Your task to perform on an android device: Open network settings Image 0: 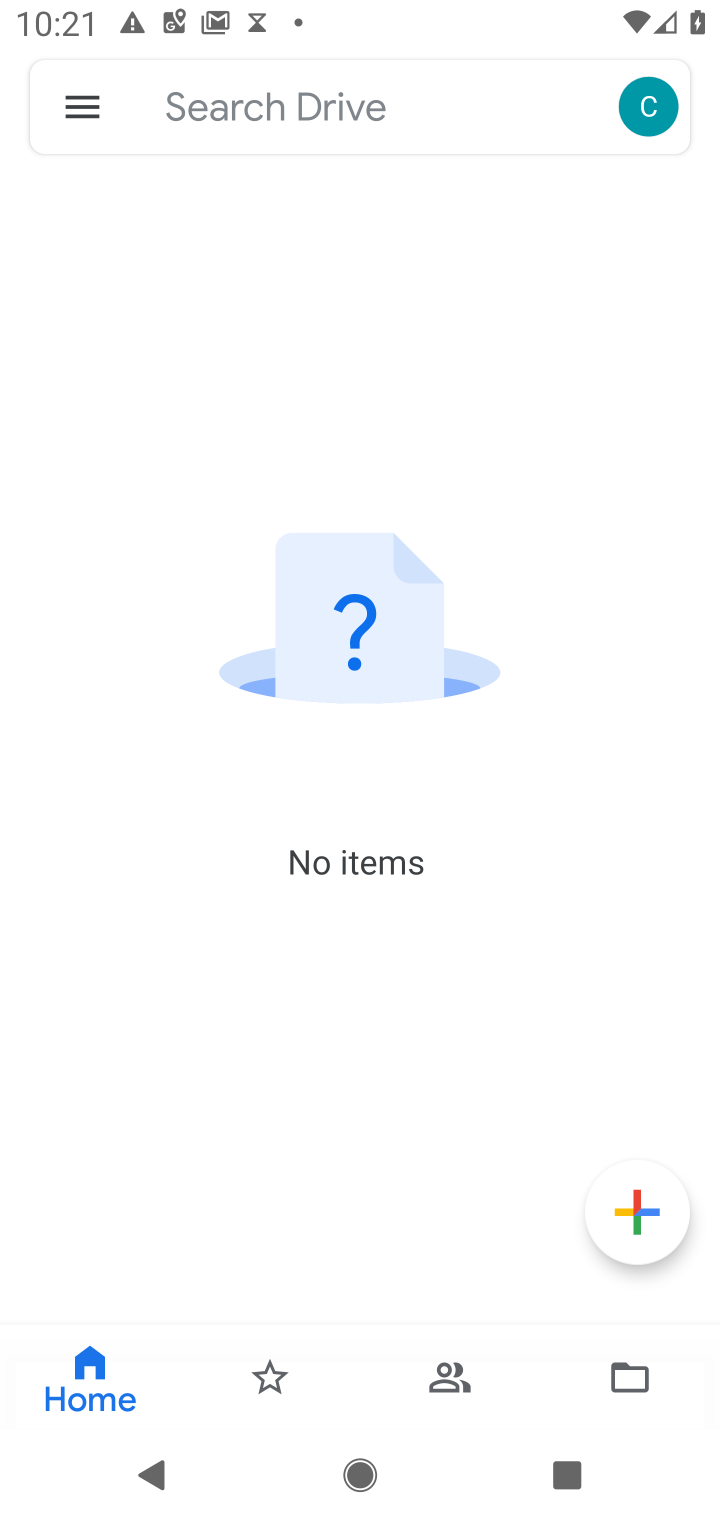
Step 0: press home button
Your task to perform on an android device: Open network settings Image 1: 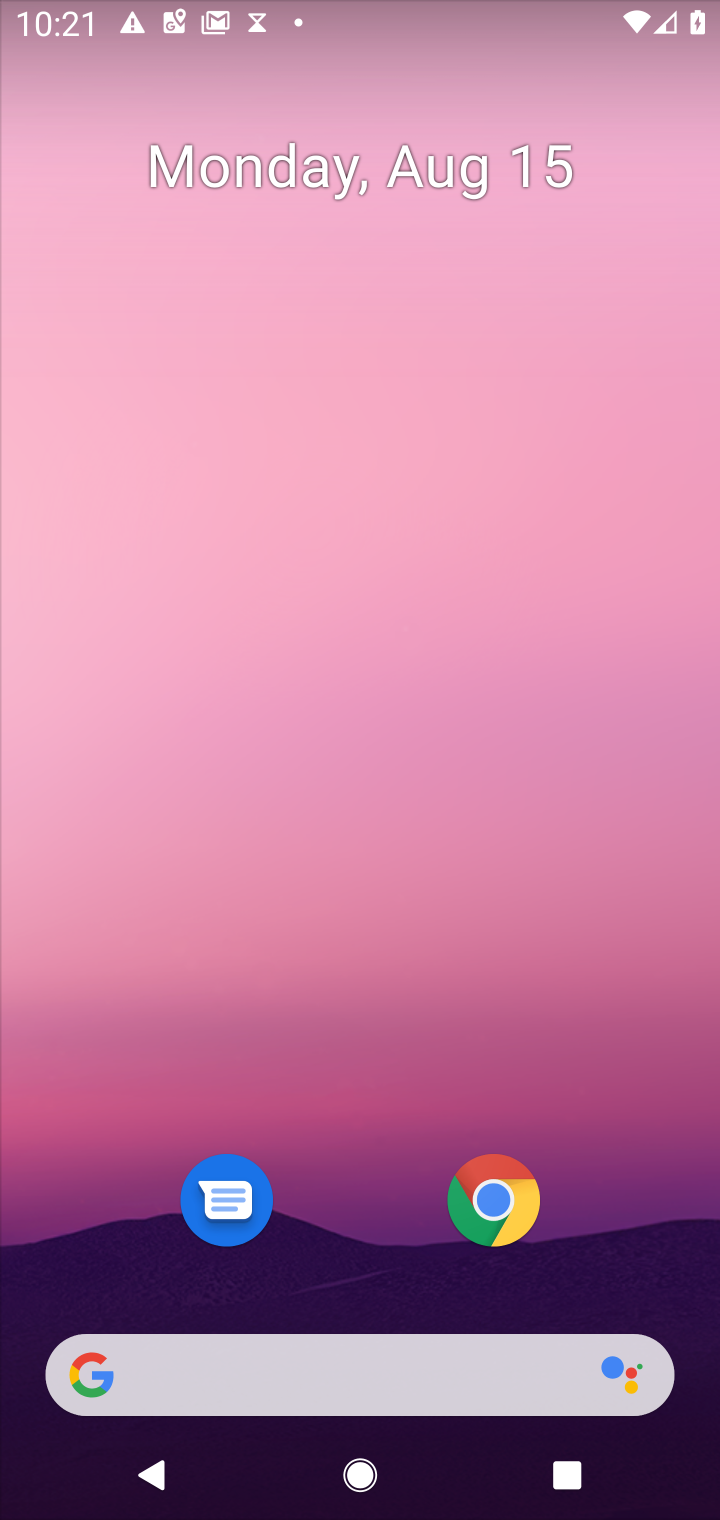
Step 1: drag from (358, 1274) to (330, 438)
Your task to perform on an android device: Open network settings Image 2: 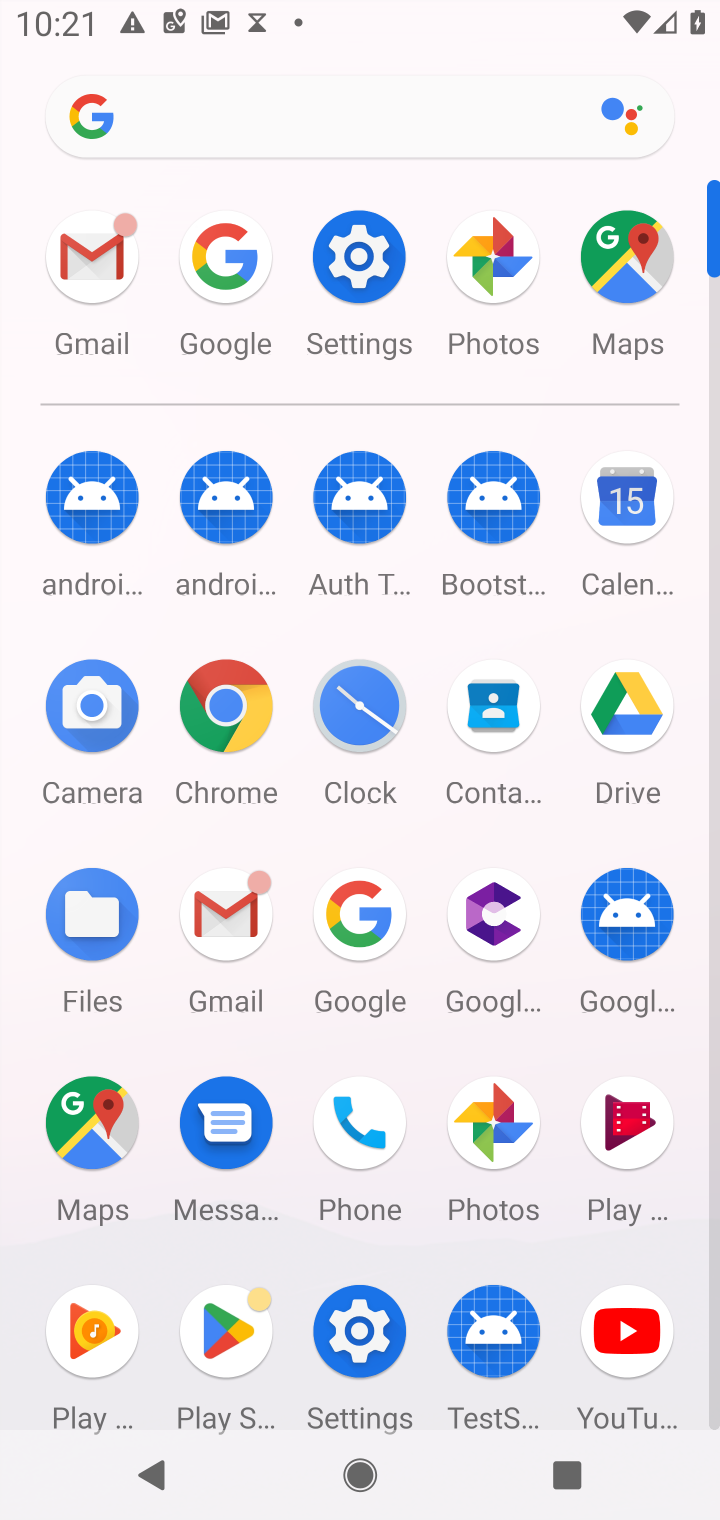
Step 2: click (343, 293)
Your task to perform on an android device: Open network settings Image 3: 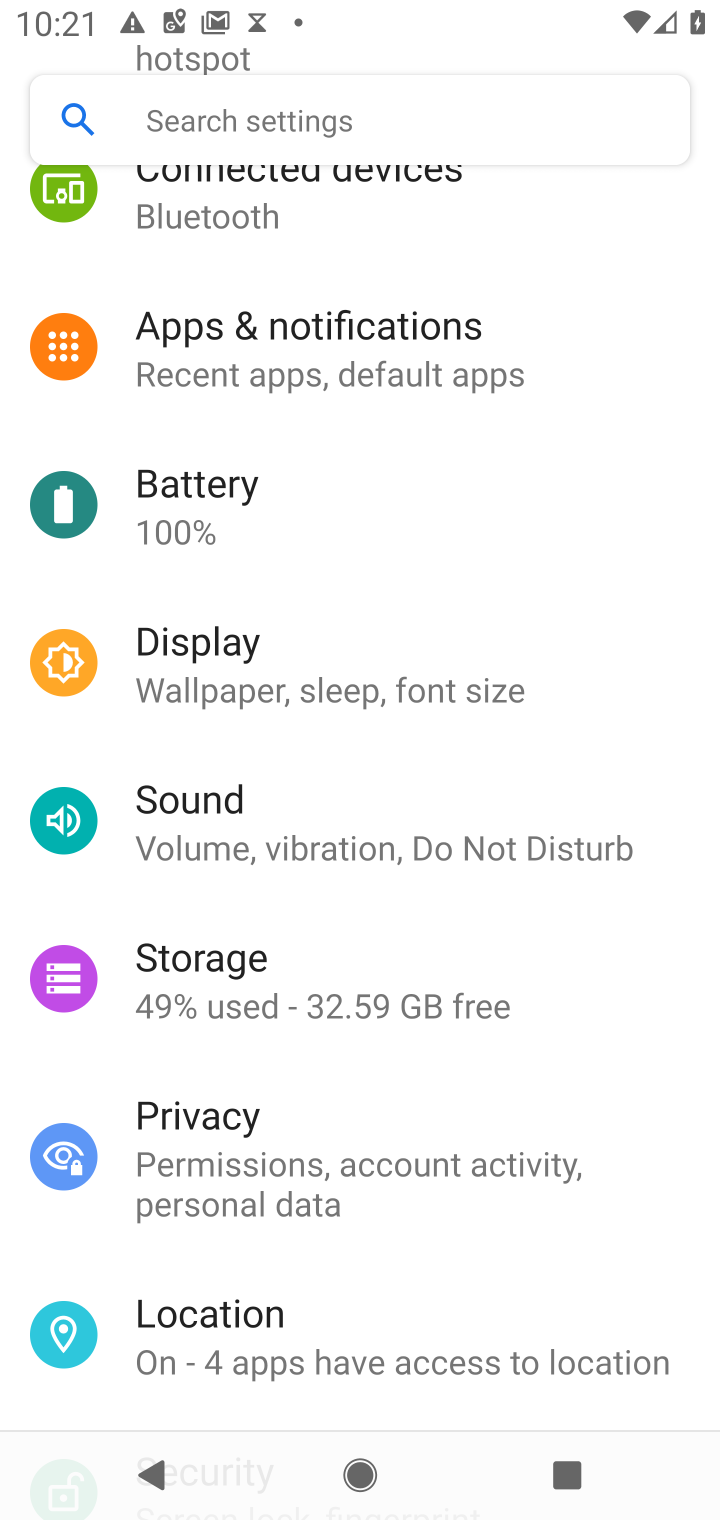
Step 3: drag from (345, 316) to (396, 977)
Your task to perform on an android device: Open network settings Image 4: 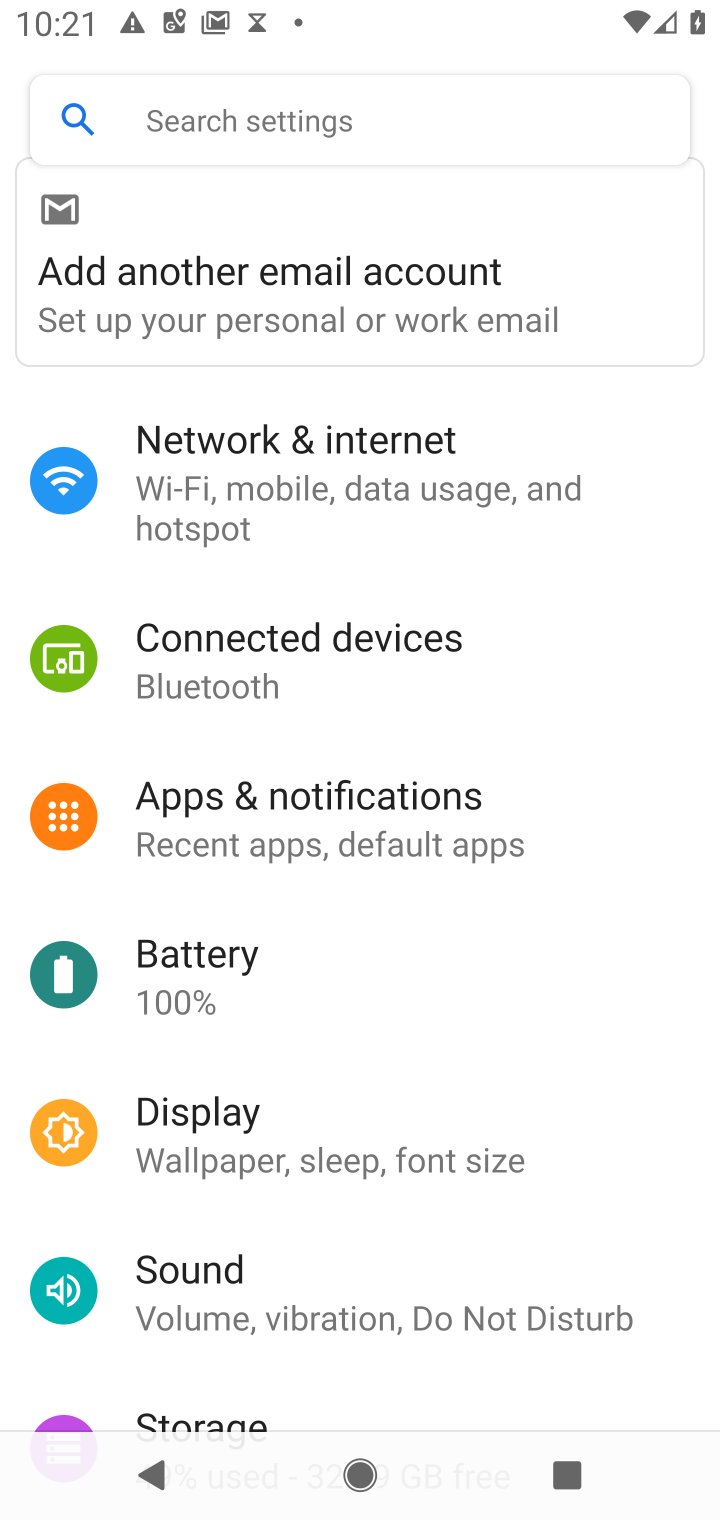
Step 4: click (336, 492)
Your task to perform on an android device: Open network settings Image 5: 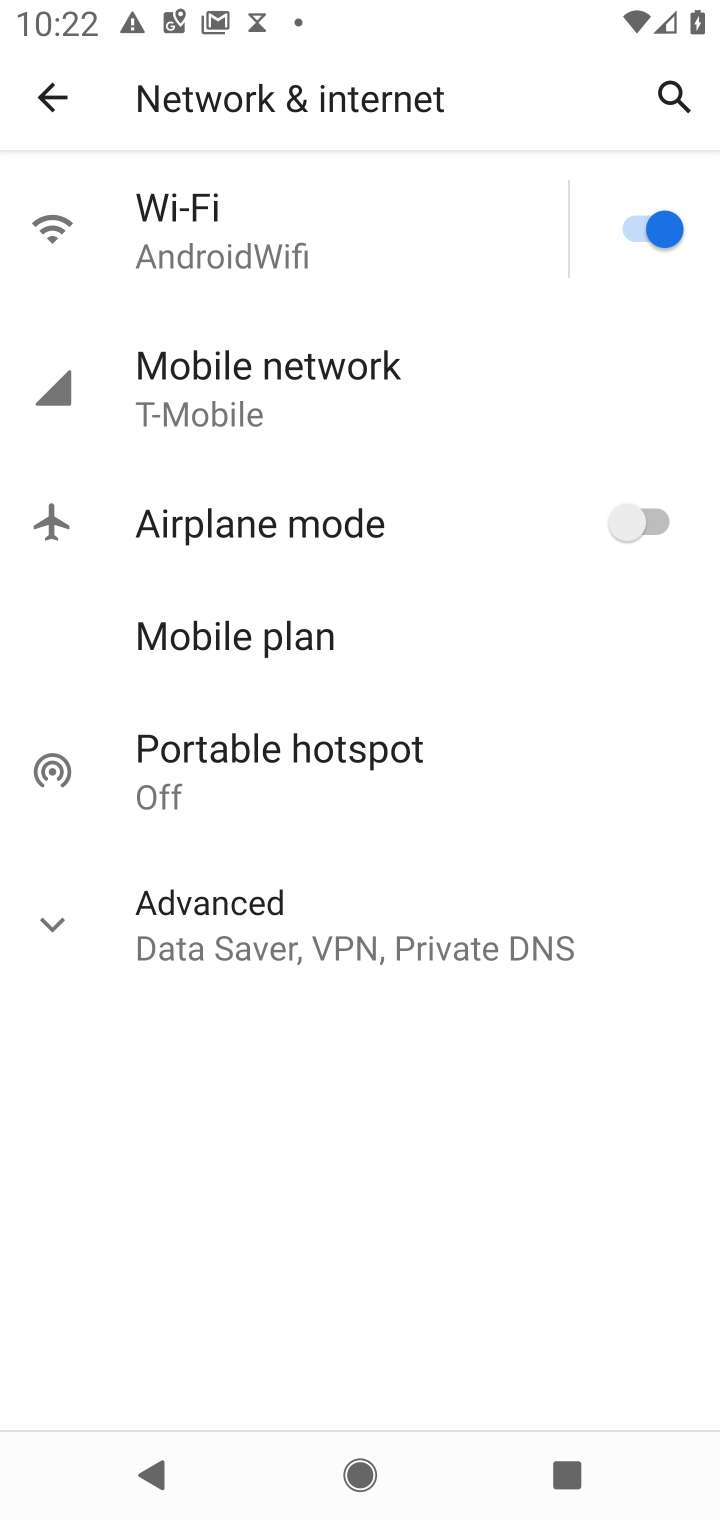
Step 5: task complete